Your task to perform on an android device: turn off javascript in the chrome app Image 0: 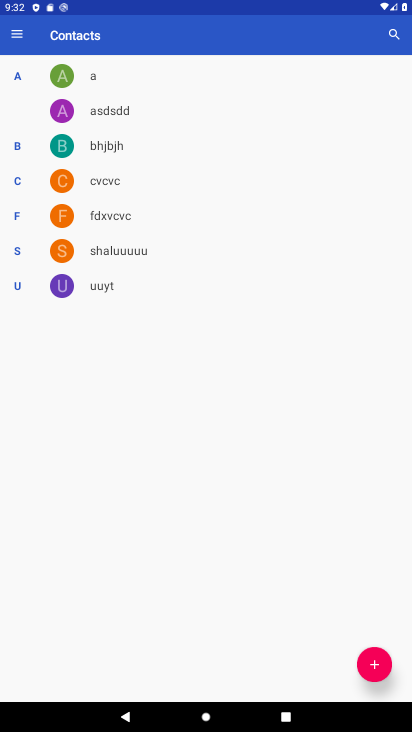
Step 0: press home button
Your task to perform on an android device: turn off javascript in the chrome app Image 1: 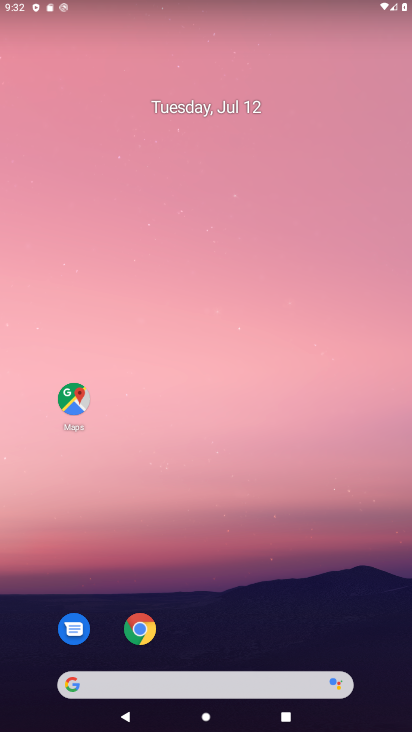
Step 1: click (146, 629)
Your task to perform on an android device: turn off javascript in the chrome app Image 2: 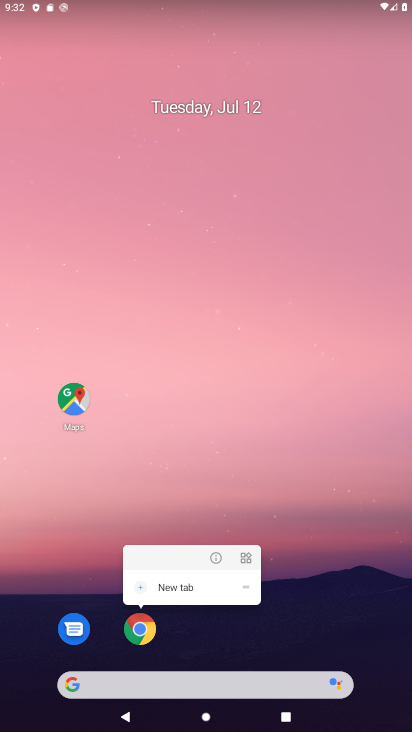
Step 2: click (145, 636)
Your task to perform on an android device: turn off javascript in the chrome app Image 3: 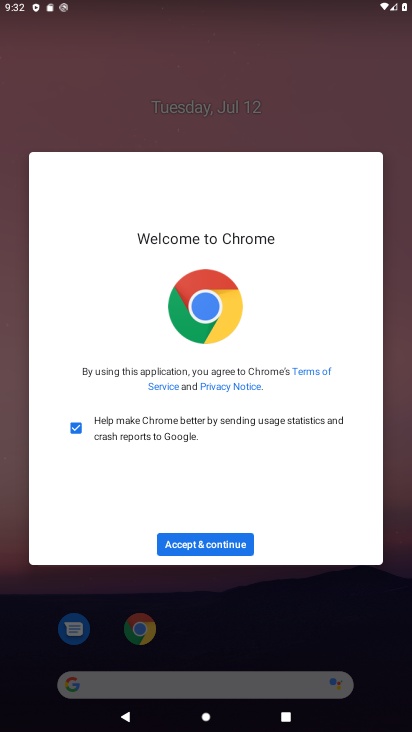
Step 3: click (243, 542)
Your task to perform on an android device: turn off javascript in the chrome app Image 4: 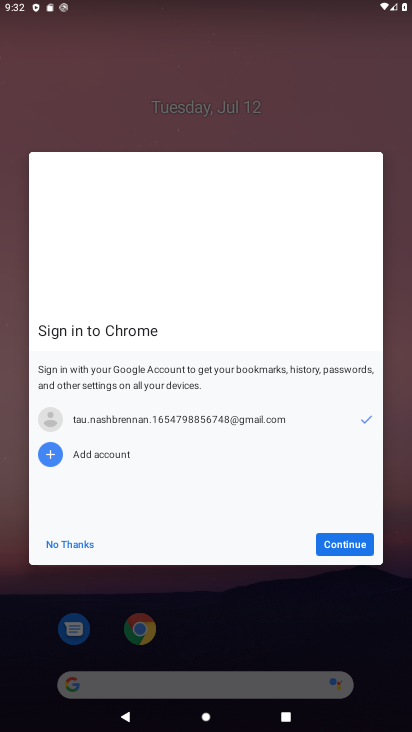
Step 4: click (360, 534)
Your task to perform on an android device: turn off javascript in the chrome app Image 5: 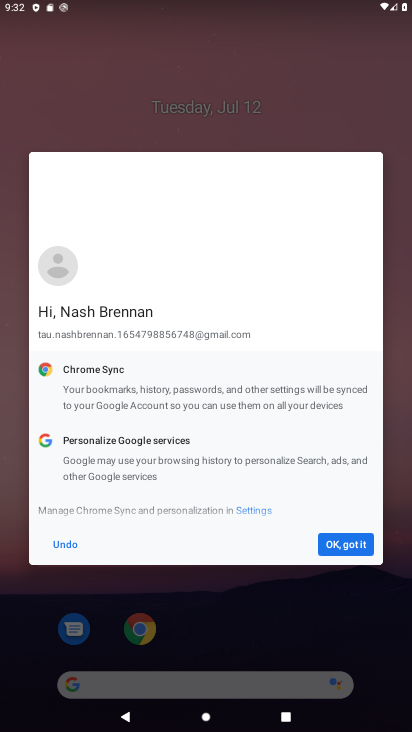
Step 5: click (360, 534)
Your task to perform on an android device: turn off javascript in the chrome app Image 6: 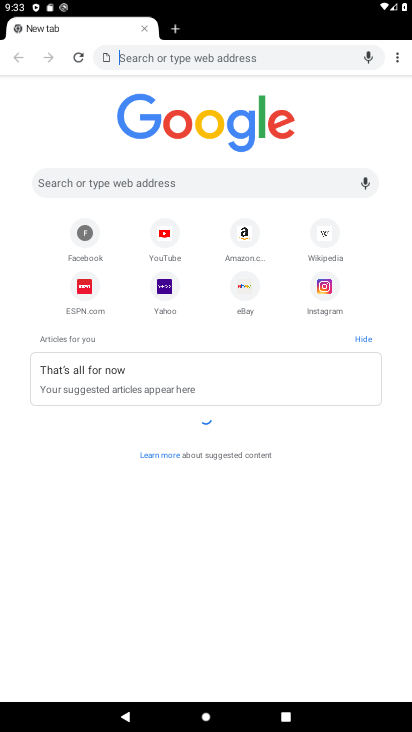
Step 6: drag from (392, 55) to (321, 253)
Your task to perform on an android device: turn off javascript in the chrome app Image 7: 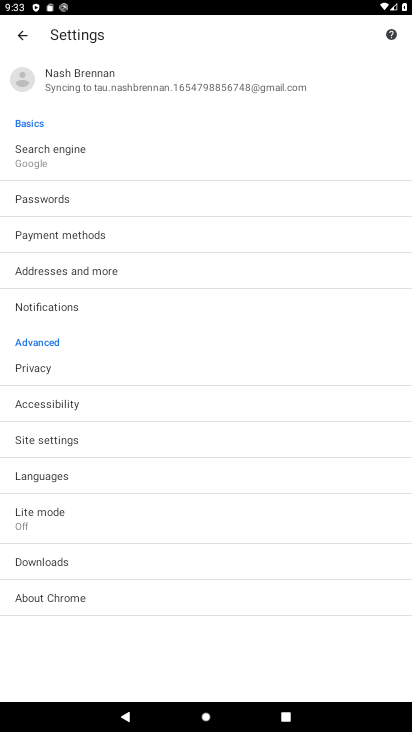
Step 7: click (60, 447)
Your task to perform on an android device: turn off javascript in the chrome app Image 8: 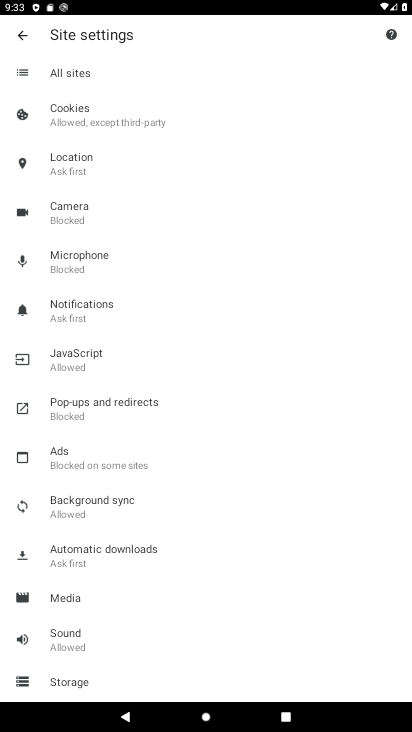
Step 8: click (112, 373)
Your task to perform on an android device: turn off javascript in the chrome app Image 9: 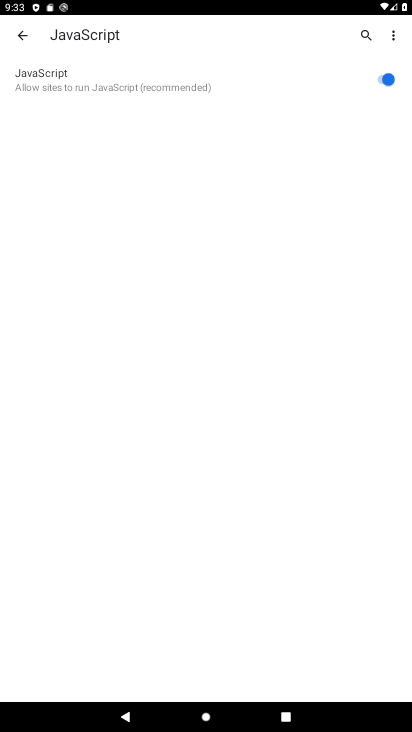
Step 9: click (370, 77)
Your task to perform on an android device: turn off javascript in the chrome app Image 10: 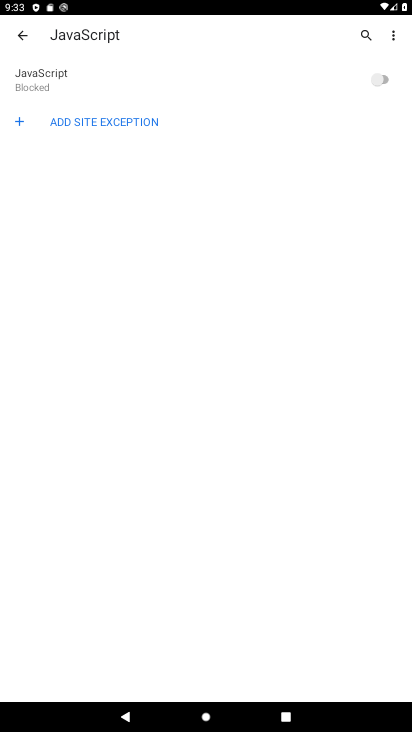
Step 10: task complete